Your task to perform on an android device: Open Android settings Image 0: 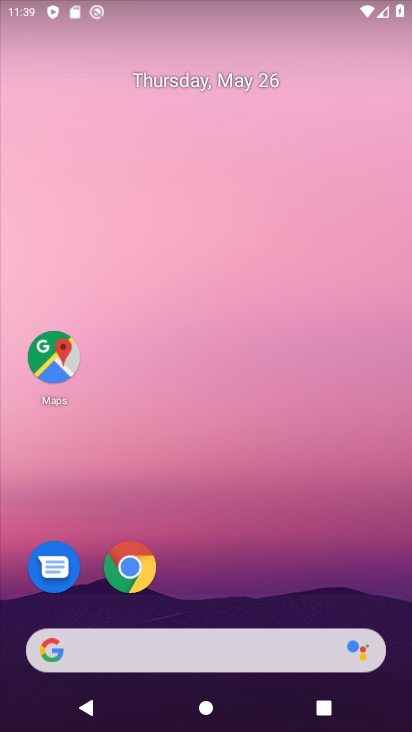
Step 0: drag from (181, 589) to (135, 70)
Your task to perform on an android device: Open Android settings Image 1: 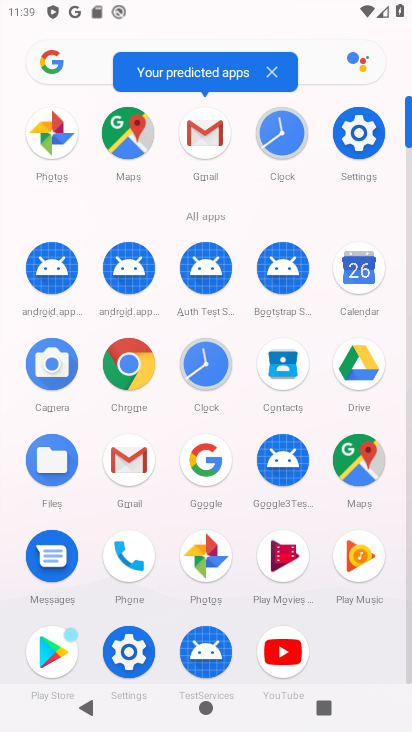
Step 1: click (114, 655)
Your task to perform on an android device: Open Android settings Image 2: 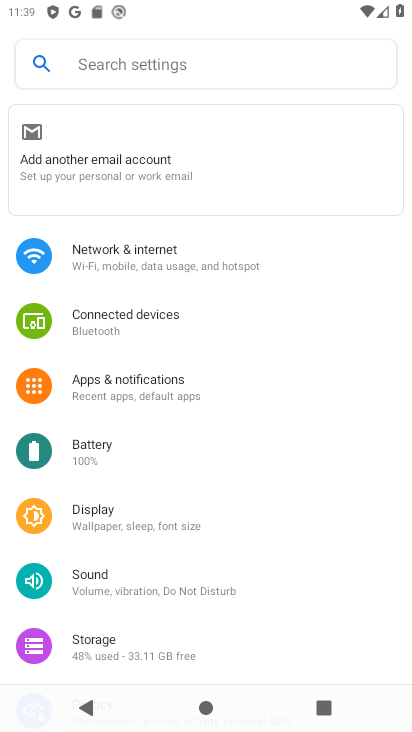
Step 2: drag from (174, 603) to (139, 149)
Your task to perform on an android device: Open Android settings Image 3: 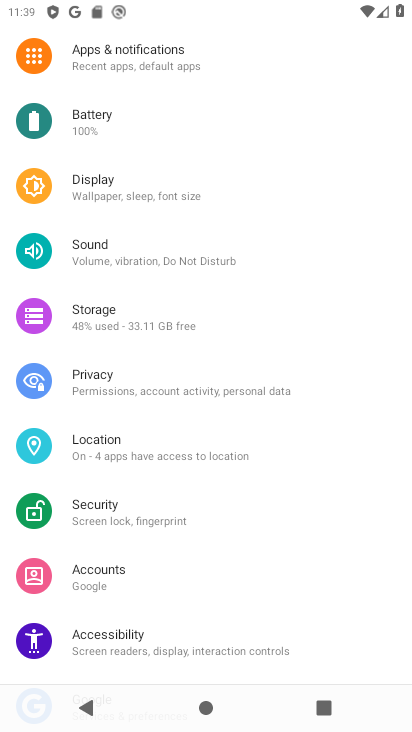
Step 3: drag from (175, 561) to (152, 297)
Your task to perform on an android device: Open Android settings Image 4: 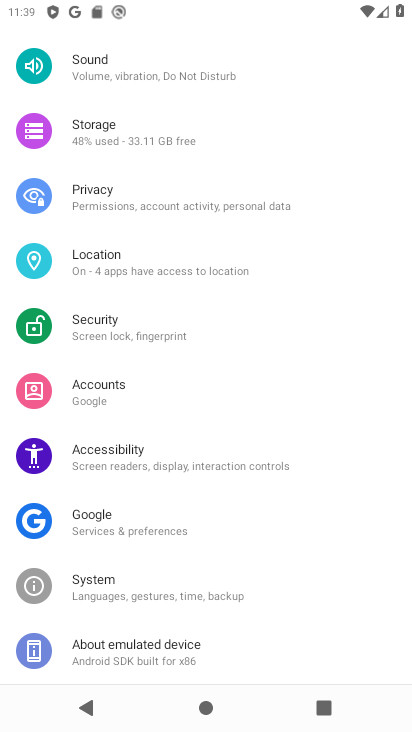
Step 4: click (156, 583)
Your task to perform on an android device: Open Android settings Image 5: 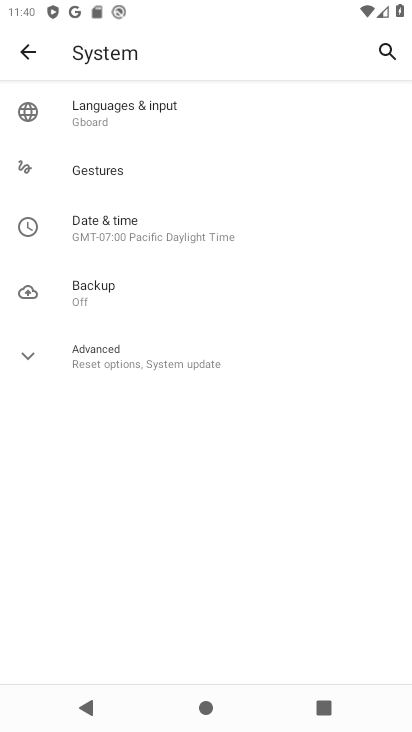
Step 5: task complete